Your task to perform on an android device: check android version Image 0: 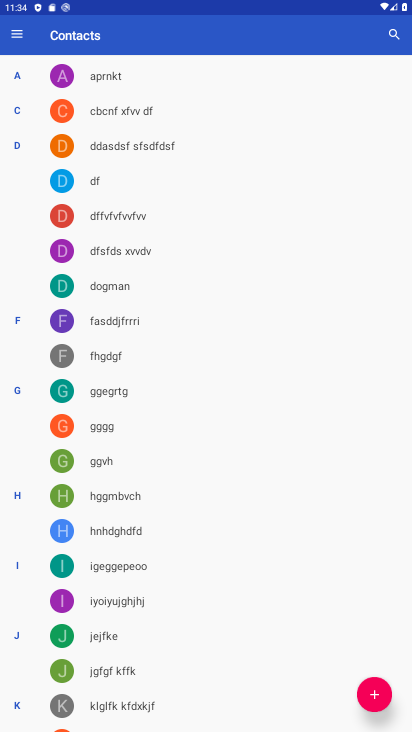
Step 0: press home button
Your task to perform on an android device: check android version Image 1: 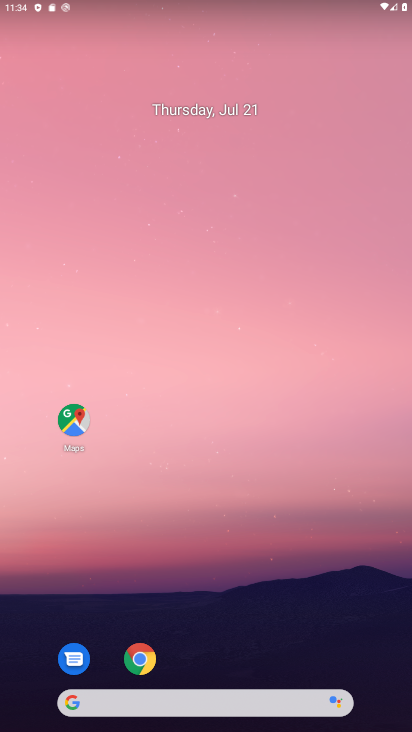
Step 1: drag from (223, 661) to (208, 86)
Your task to perform on an android device: check android version Image 2: 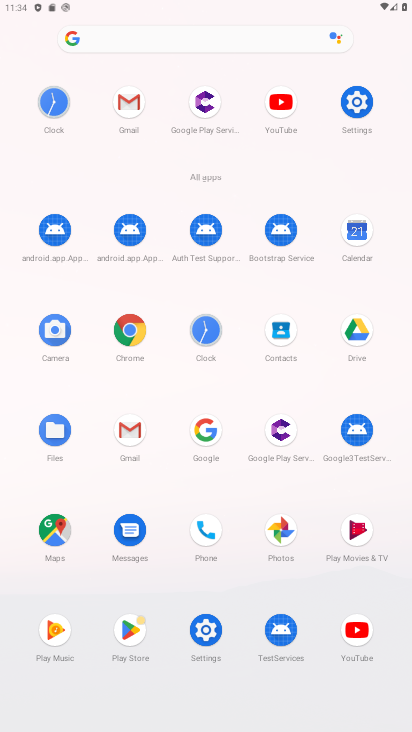
Step 2: click (344, 109)
Your task to perform on an android device: check android version Image 3: 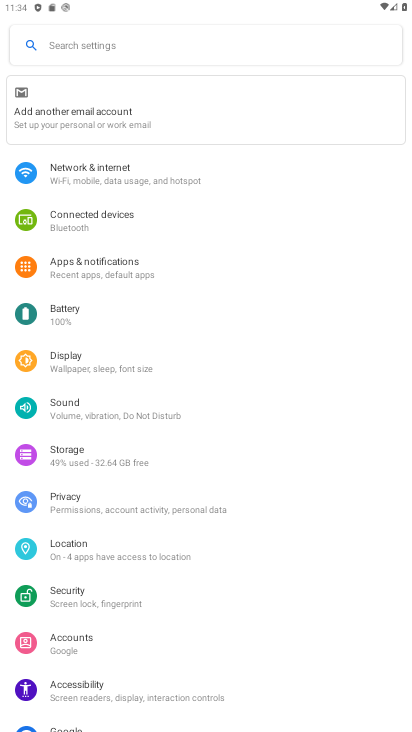
Step 3: drag from (116, 607) to (257, 80)
Your task to perform on an android device: check android version Image 4: 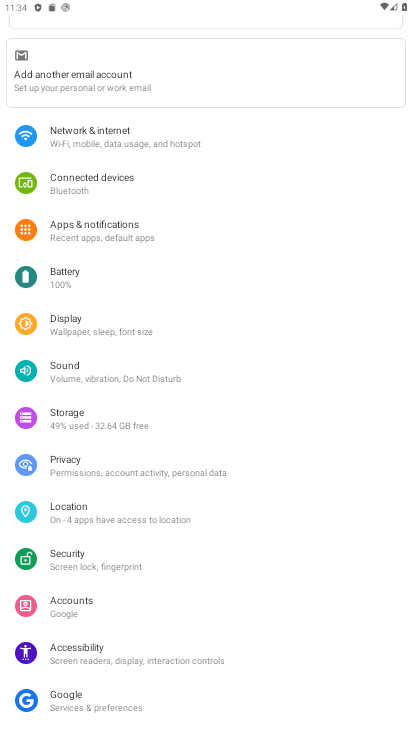
Step 4: drag from (128, 709) to (294, 56)
Your task to perform on an android device: check android version Image 5: 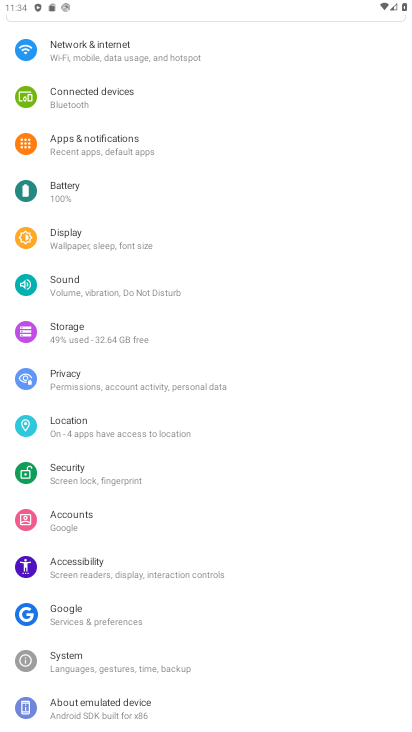
Step 5: click (78, 706)
Your task to perform on an android device: check android version Image 6: 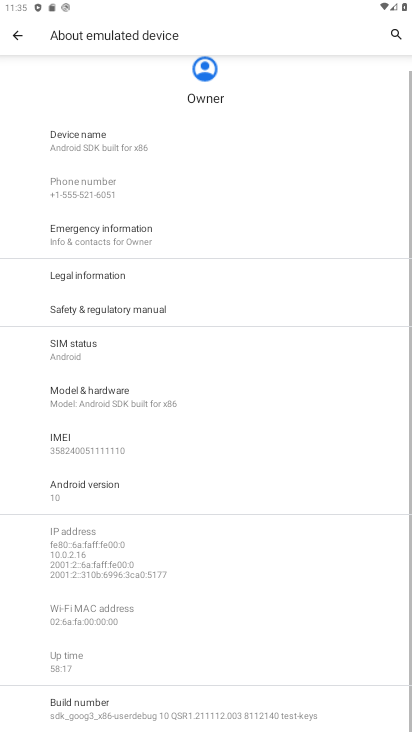
Step 6: task complete